Your task to perform on an android device: open chrome privacy settings Image 0: 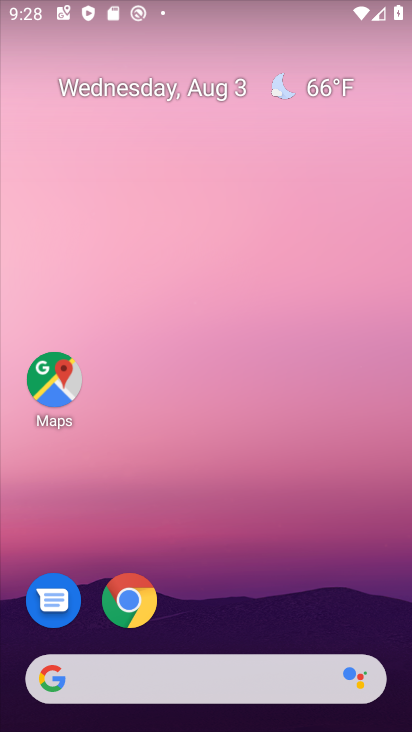
Step 0: click (135, 618)
Your task to perform on an android device: open chrome privacy settings Image 1: 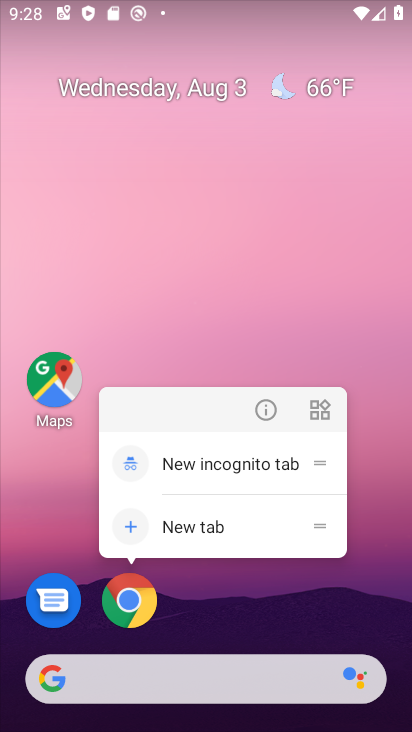
Step 1: click (136, 598)
Your task to perform on an android device: open chrome privacy settings Image 2: 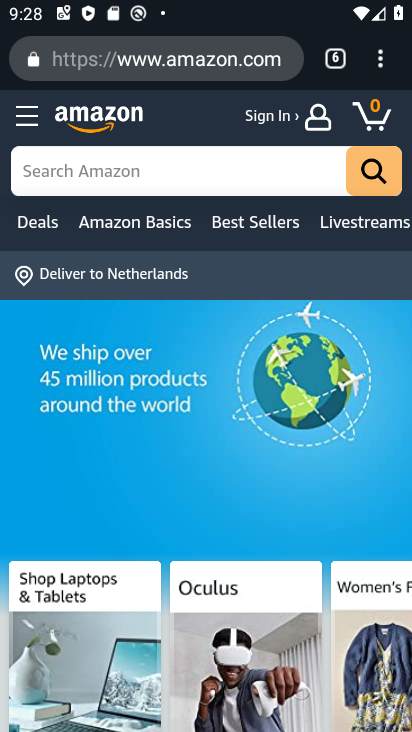
Step 2: click (374, 51)
Your task to perform on an android device: open chrome privacy settings Image 3: 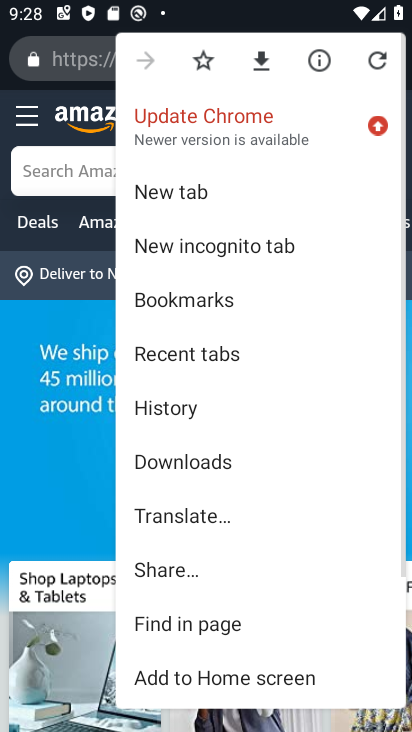
Step 3: drag from (198, 632) to (189, 339)
Your task to perform on an android device: open chrome privacy settings Image 4: 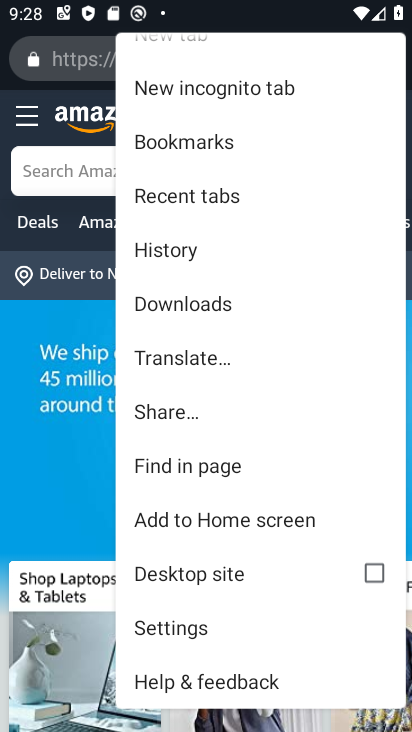
Step 4: click (181, 640)
Your task to perform on an android device: open chrome privacy settings Image 5: 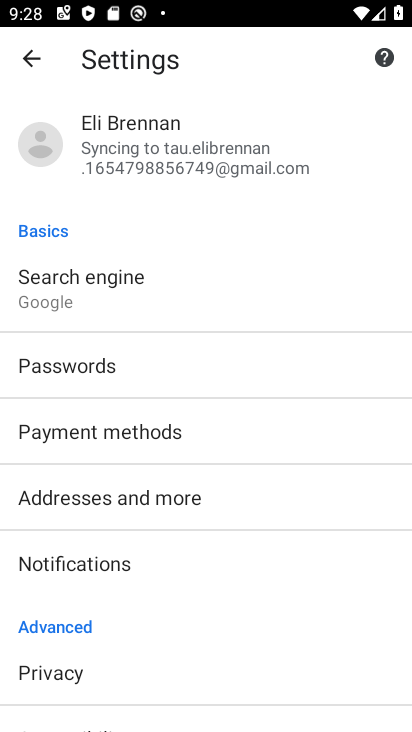
Step 5: drag from (112, 602) to (155, 309)
Your task to perform on an android device: open chrome privacy settings Image 6: 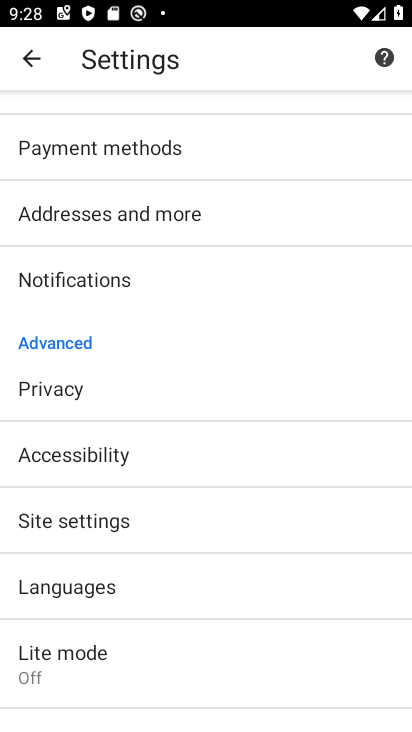
Step 6: click (53, 380)
Your task to perform on an android device: open chrome privacy settings Image 7: 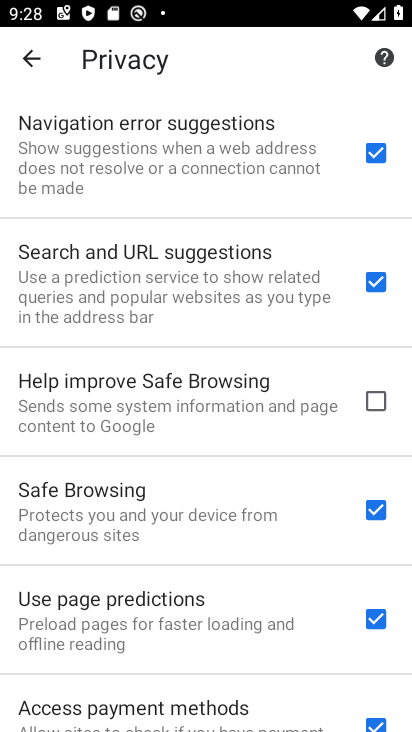
Step 7: task complete